Your task to perform on an android device: turn smart compose on in the gmail app Image 0: 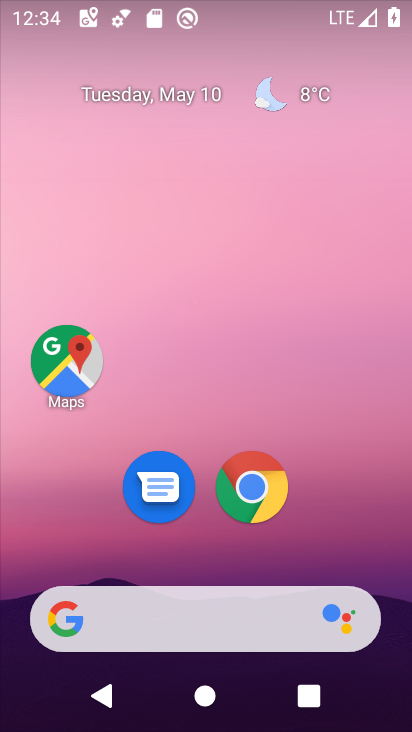
Step 0: drag from (223, 546) to (247, 108)
Your task to perform on an android device: turn smart compose on in the gmail app Image 1: 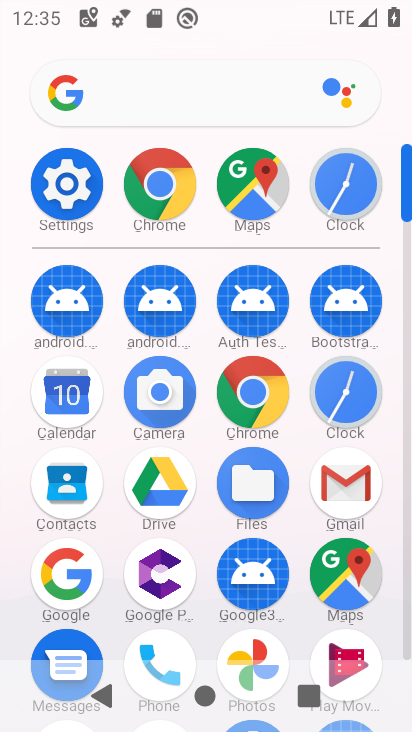
Step 1: click (344, 473)
Your task to perform on an android device: turn smart compose on in the gmail app Image 2: 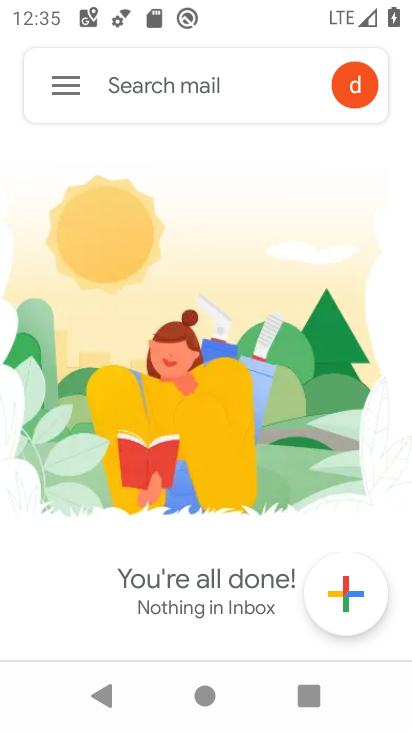
Step 2: click (61, 80)
Your task to perform on an android device: turn smart compose on in the gmail app Image 3: 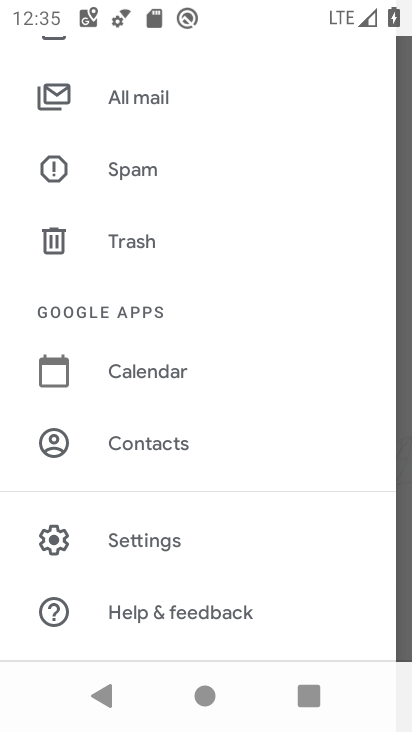
Step 3: click (91, 535)
Your task to perform on an android device: turn smart compose on in the gmail app Image 4: 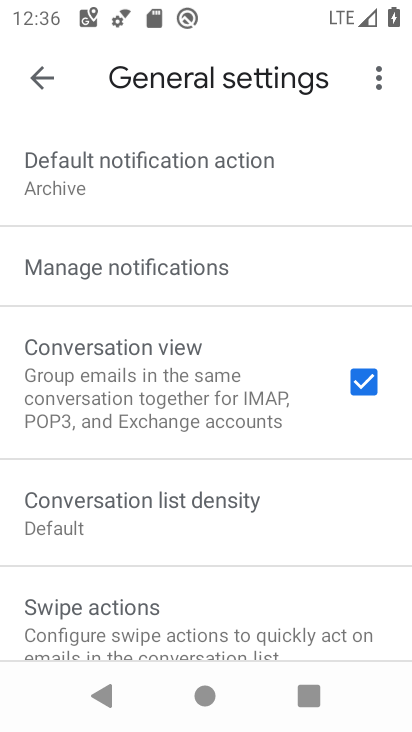
Step 4: drag from (197, 606) to (207, 250)
Your task to perform on an android device: turn smart compose on in the gmail app Image 5: 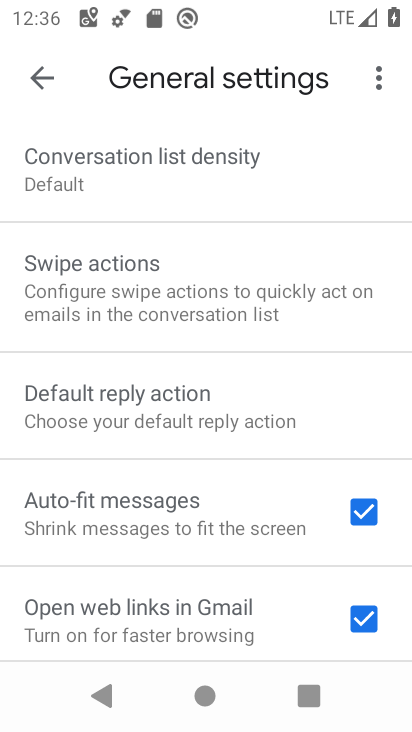
Step 5: click (50, 80)
Your task to perform on an android device: turn smart compose on in the gmail app Image 6: 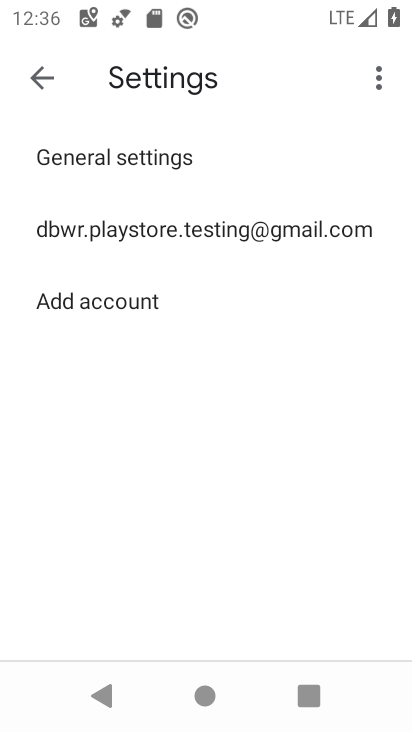
Step 6: click (187, 223)
Your task to perform on an android device: turn smart compose on in the gmail app Image 7: 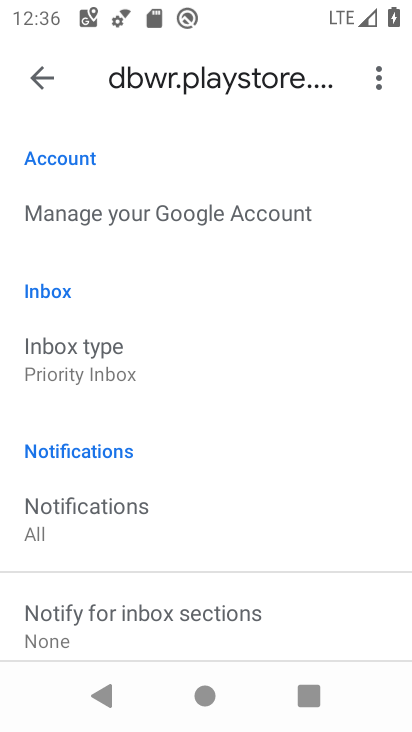
Step 7: task complete